Your task to perform on an android device: toggle notifications settings in the gmail app Image 0: 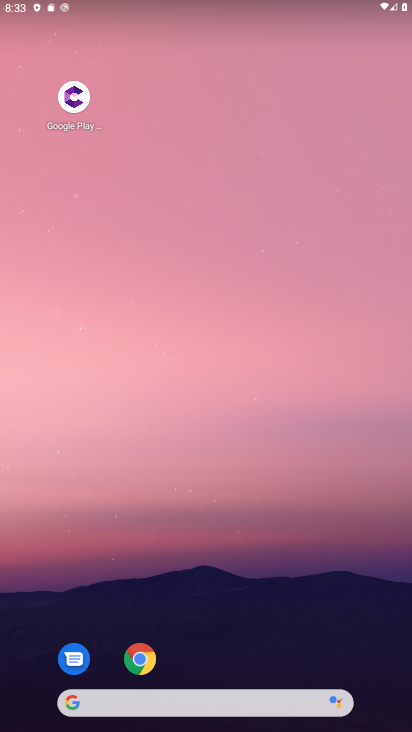
Step 0: drag from (260, 585) to (259, 50)
Your task to perform on an android device: toggle notifications settings in the gmail app Image 1: 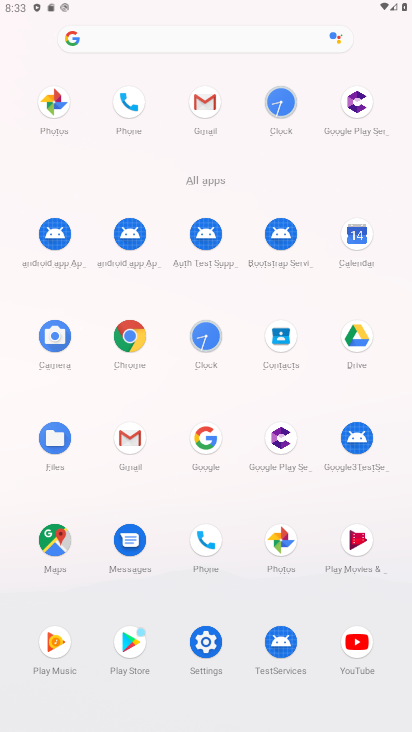
Step 1: click (194, 100)
Your task to perform on an android device: toggle notifications settings in the gmail app Image 2: 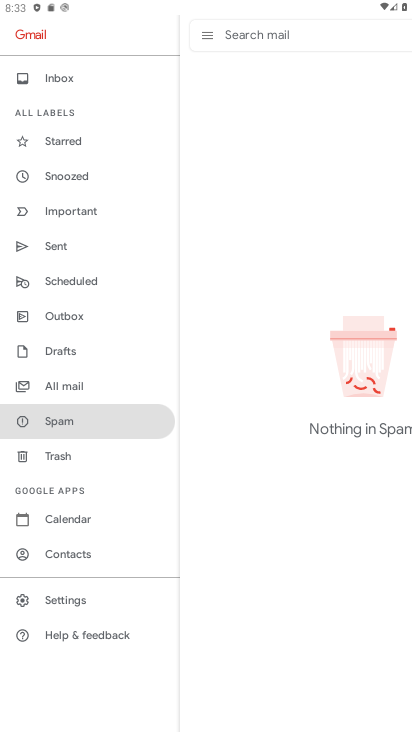
Step 2: click (71, 600)
Your task to perform on an android device: toggle notifications settings in the gmail app Image 3: 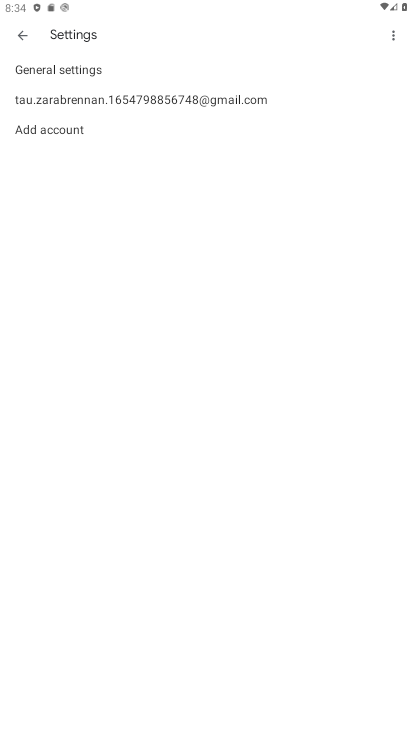
Step 3: click (54, 61)
Your task to perform on an android device: toggle notifications settings in the gmail app Image 4: 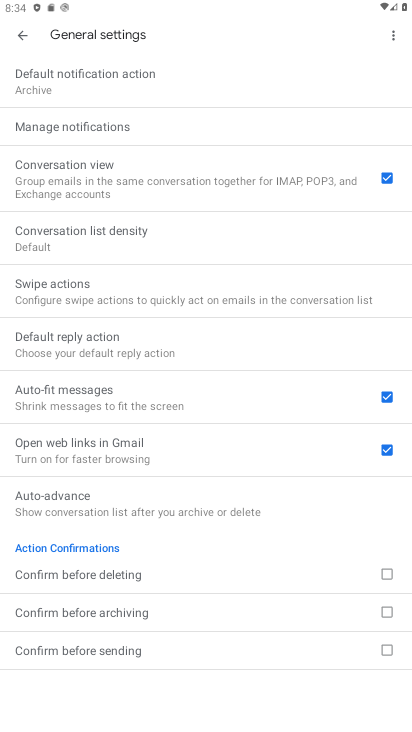
Step 4: click (64, 123)
Your task to perform on an android device: toggle notifications settings in the gmail app Image 5: 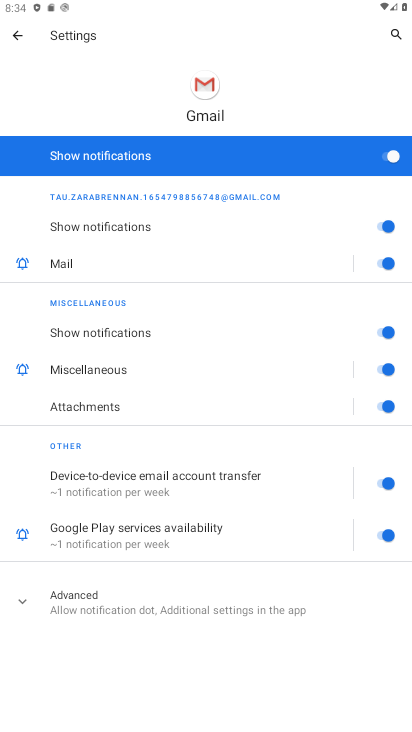
Step 5: click (392, 157)
Your task to perform on an android device: toggle notifications settings in the gmail app Image 6: 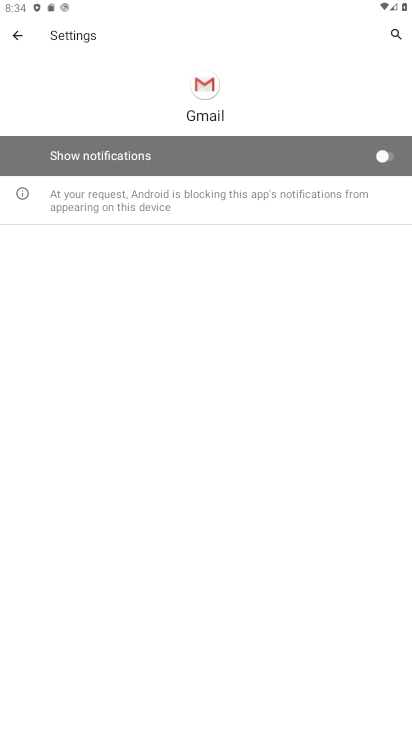
Step 6: task complete